Your task to perform on an android device: set the stopwatch Image 0: 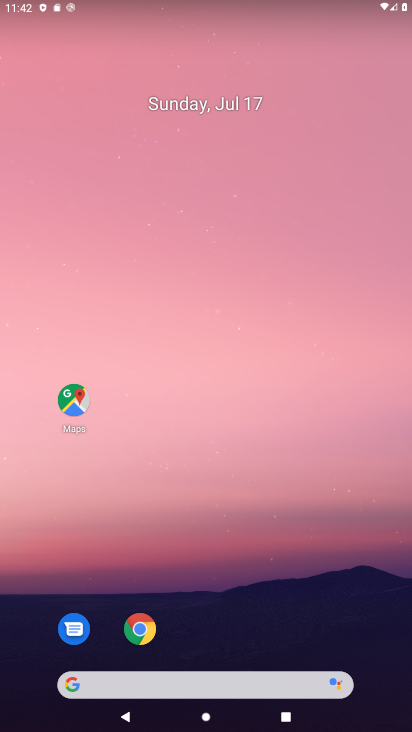
Step 0: drag from (215, 651) to (205, 4)
Your task to perform on an android device: set the stopwatch Image 1: 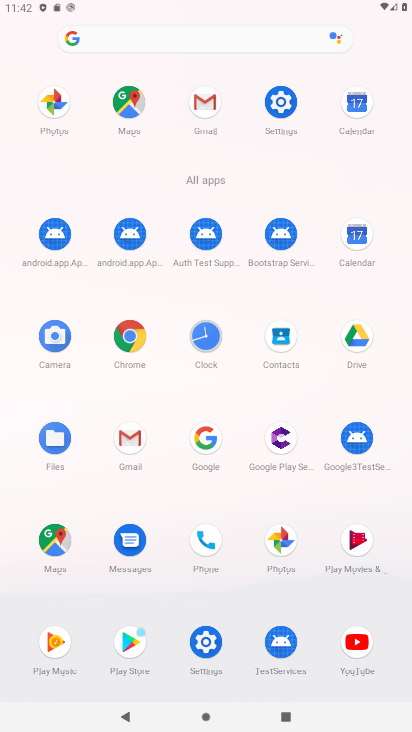
Step 1: click (204, 328)
Your task to perform on an android device: set the stopwatch Image 2: 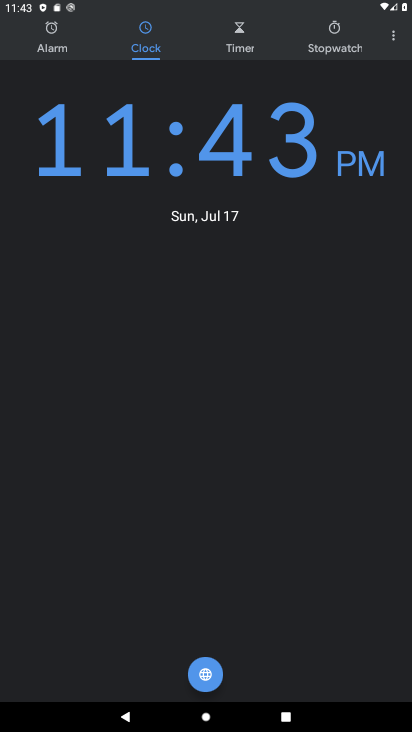
Step 2: click (335, 27)
Your task to perform on an android device: set the stopwatch Image 3: 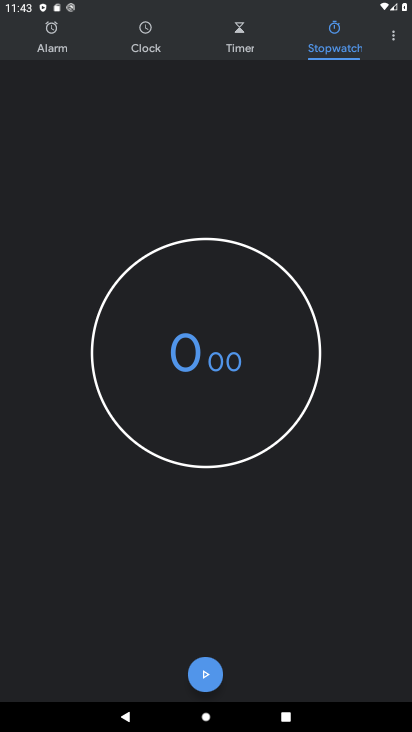
Step 3: click (204, 664)
Your task to perform on an android device: set the stopwatch Image 4: 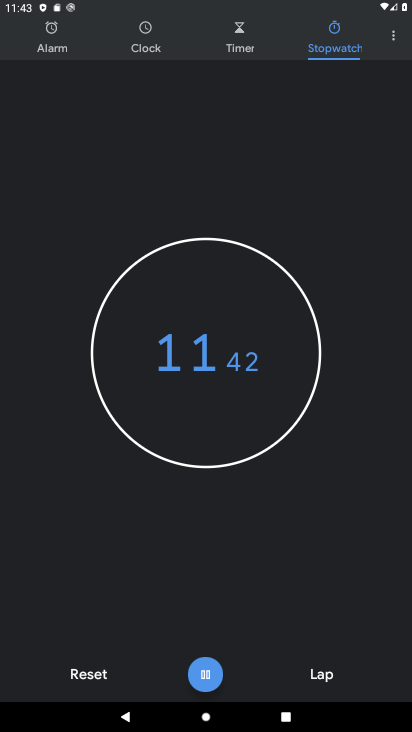
Step 4: task complete